Your task to perform on an android device: turn off smart reply in the gmail app Image 0: 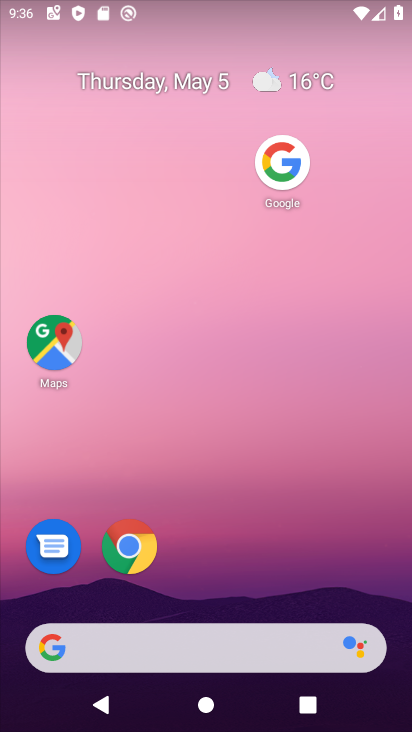
Step 0: drag from (176, 653) to (290, 156)
Your task to perform on an android device: turn off smart reply in the gmail app Image 1: 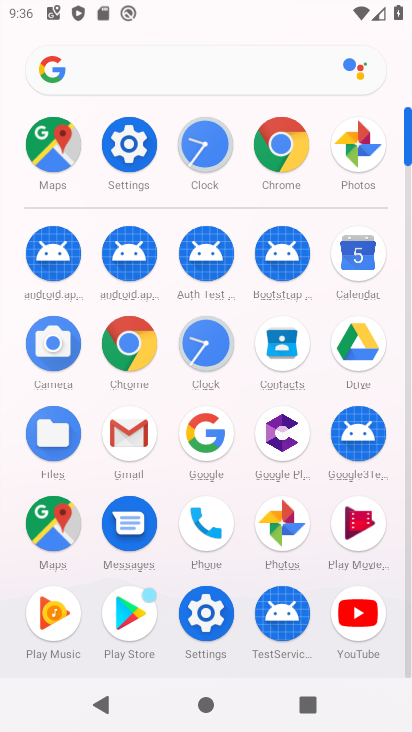
Step 1: click (125, 446)
Your task to perform on an android device: turn off smart reply in the gmail app Image 2: 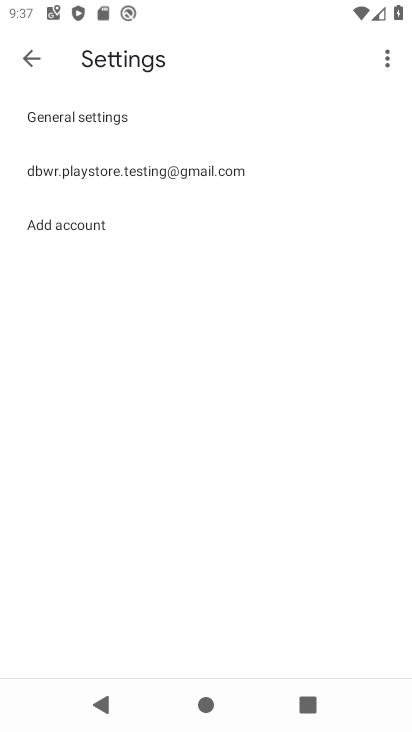
Step 2: click (140, 170)
Your task to perform on an android device: turn off smart reply in the gmail app Image 3: 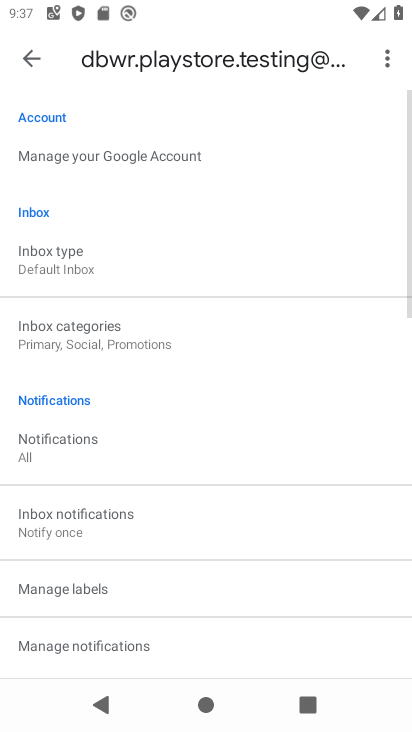
Step 3: drag from (172, 621) to (349, 156)
Your task to perform on an android device: turn off smart reply in the gmail app Image 4: 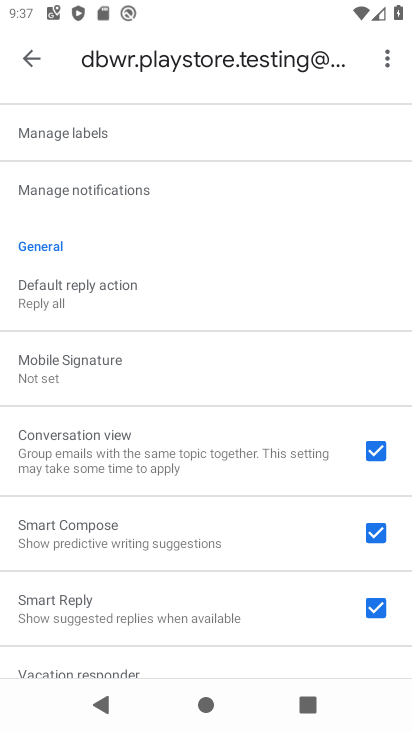
Step 4: drag from (221, 576) to (280, 427)
Your task to perform on an android device: turn off smart reply in the gmail app Image 5: 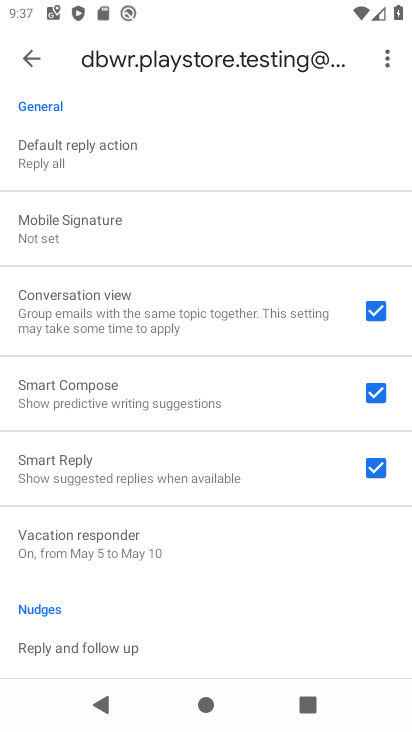
Step 5: click (370, 475)
Your task to perform on an android device: turn off smart reply in the gmail app Image 6: 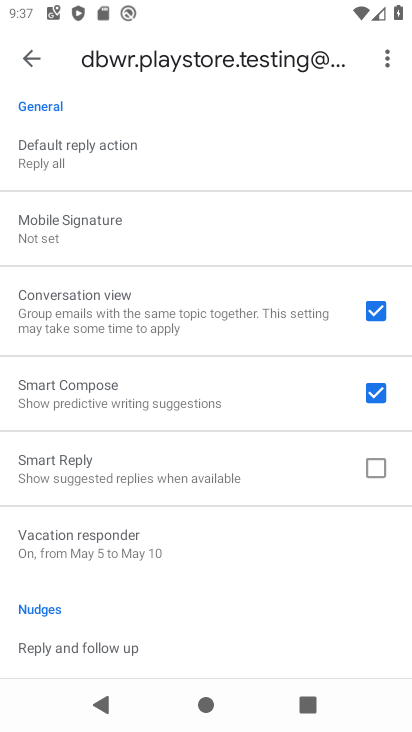
Step 6: task complete